Your task to perform on an android device: Open Chrome and go to the settings page Image 0: 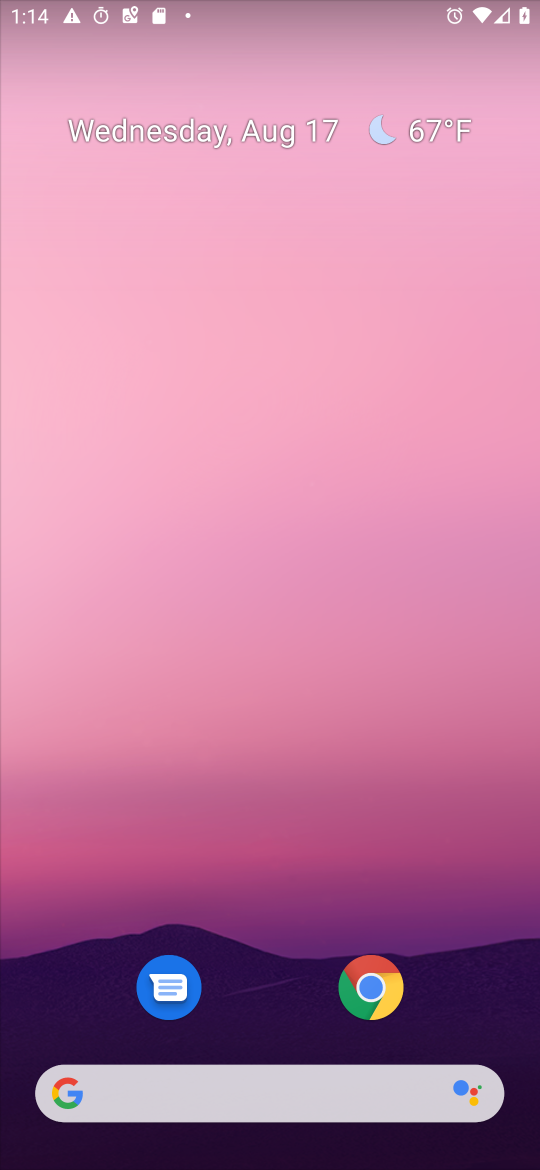
Step 0: drag from (33, 1136) to (231, 408)
Your task to perform on an android device: Open Chrome and go to the settings page Image 1: 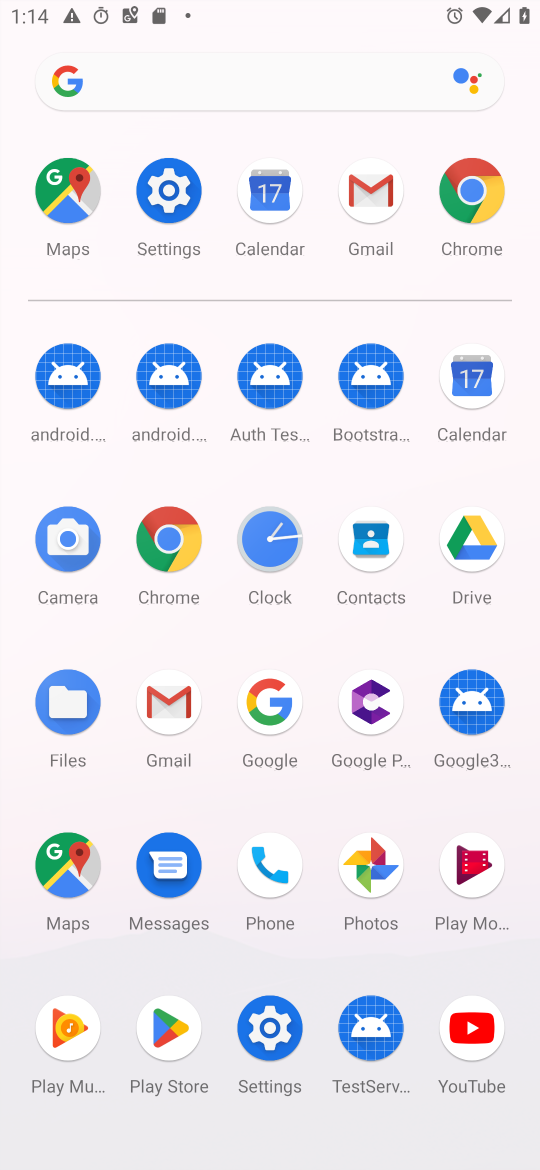
Step 1: click (463, 207)
Your task to perform on an android device: Open Chrome and go to the settings page Image 2: 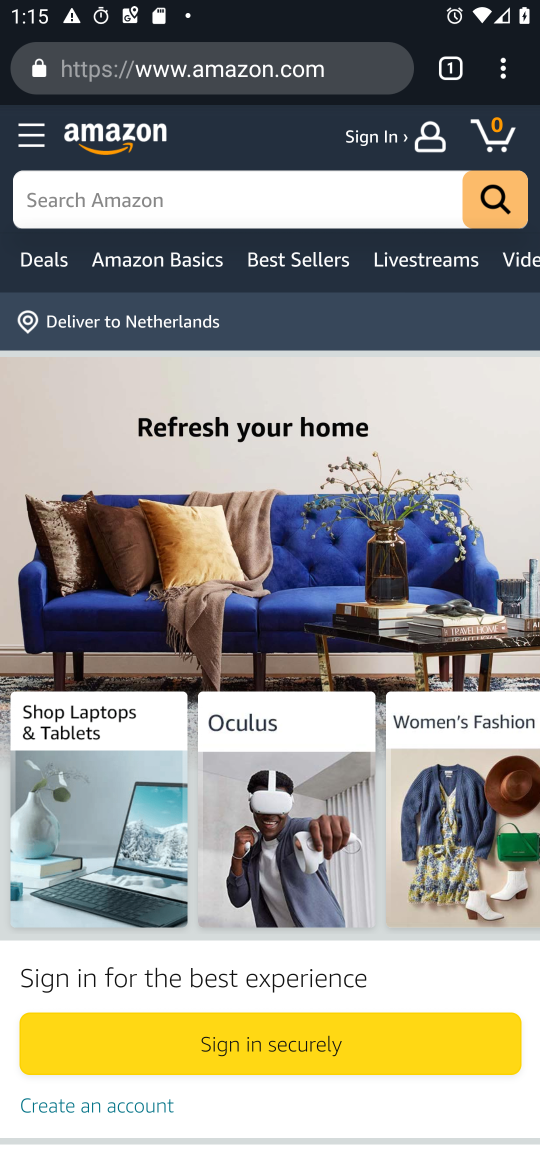
Step 2: click (515, 65)
Your task to perform on an android device: Open Chrome and go to the settings page Image 3: 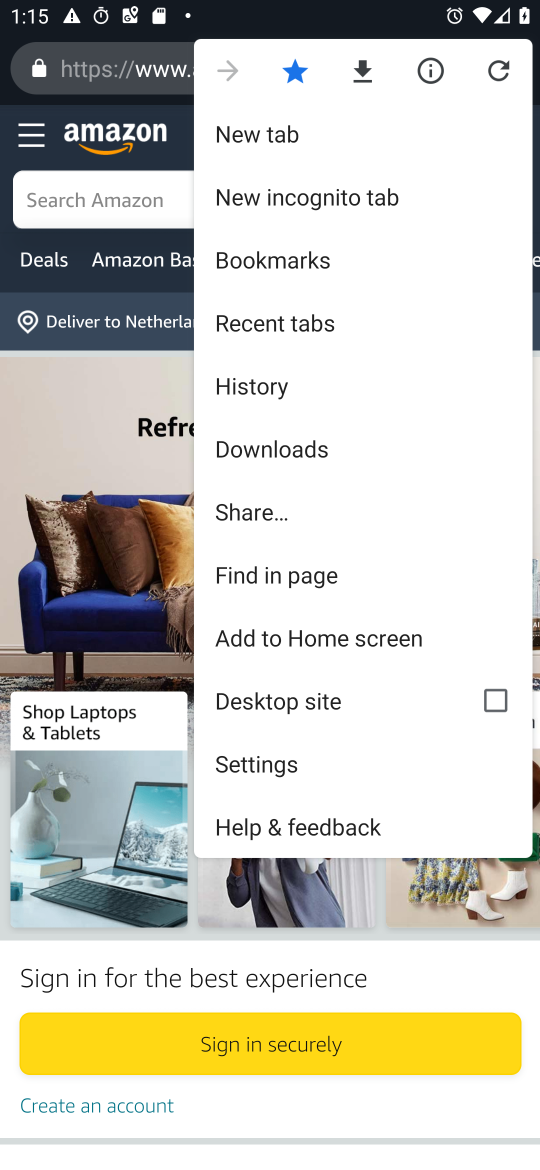
Step 3: click (299, 766)
Your task to perform on an android device: Open Chrome and go to the settings page Image 4: 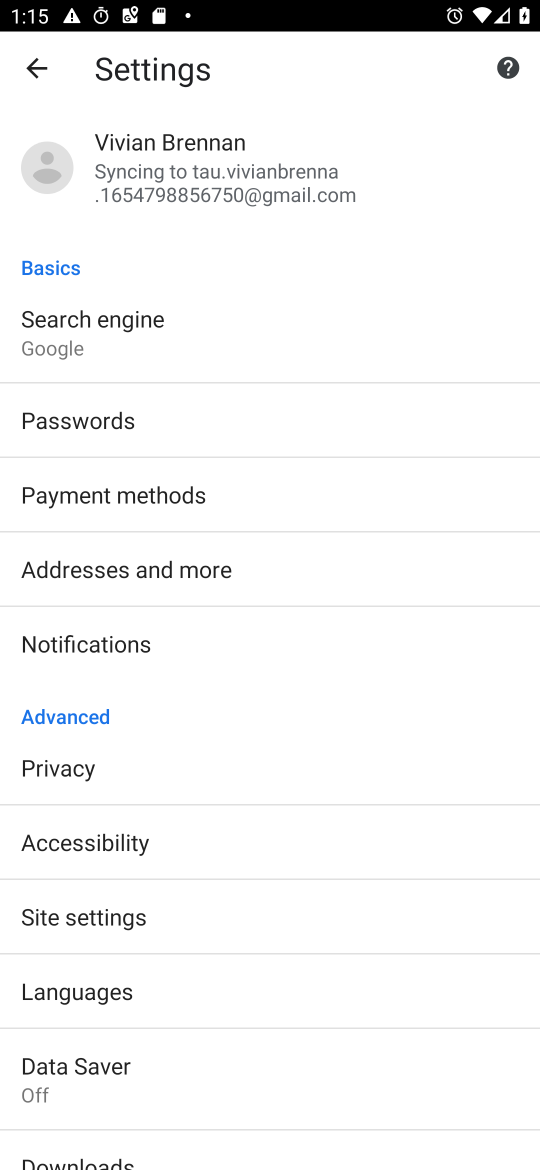
Step 4: task complete